Your task to perform on an android device: install app "The Home Depot" Image 0: 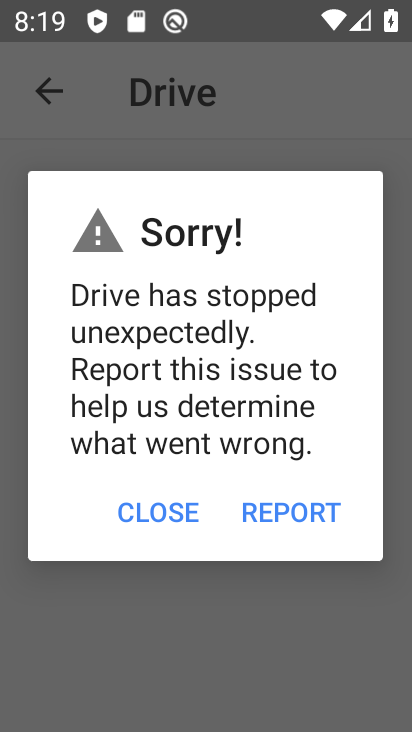
Step 0: press home button
Your task to perform on an android device: install app "The Home Depot" Image 1: 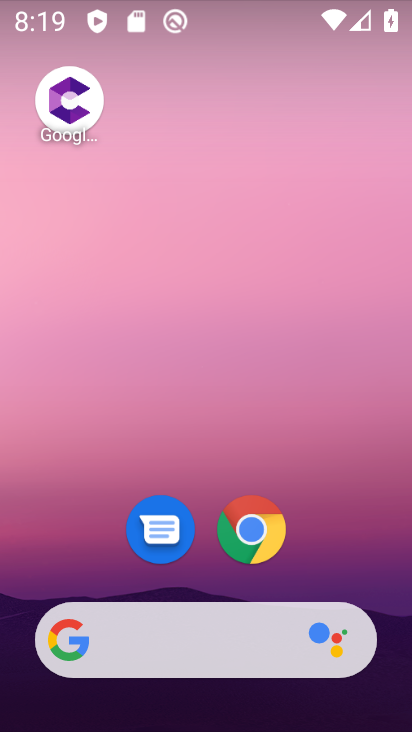
Step 1: drag from (334, 552) to (237, 14)
Your task to perform on an android device: install app "The Home Depot" Image 2: 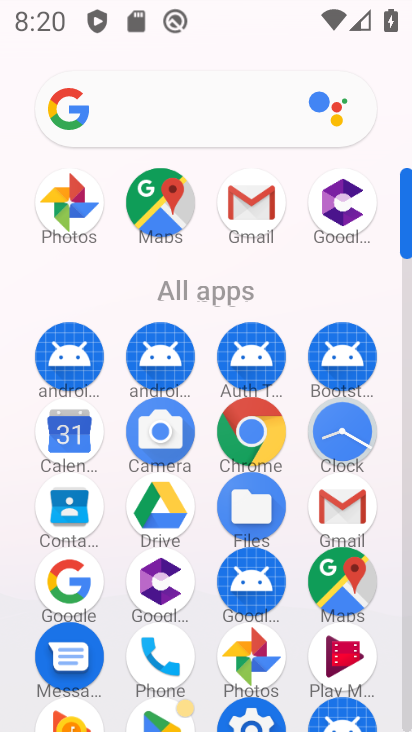
Step 2: drag from (17, 488) to (81, 72)
Your task to perform on an android device: install app "The Home Depot" Image 3: 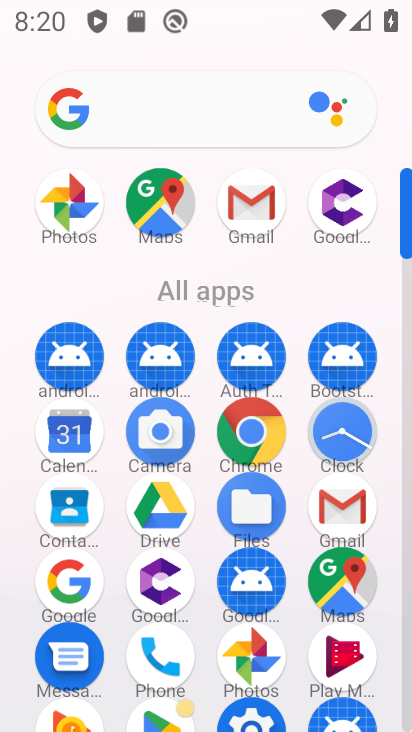
Step 3: drag from (16, 494) to (21, 238)
Your task to perform on an android device: install app "The Home Depot" Image 4: 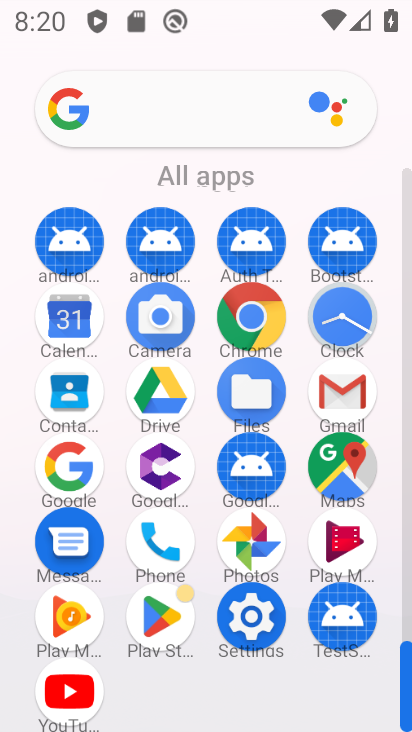
Step 4: click (159, 613)
Your task to perform on an android device: install app "The Home Depot" Image 5: 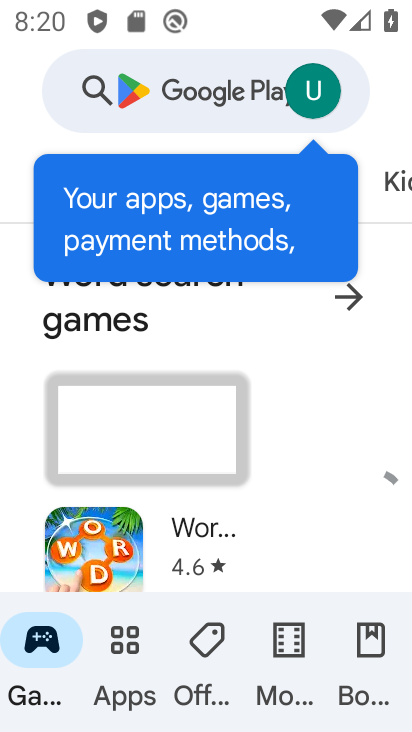
Step 5: click (201, 109)
Your task to perform on an android device: install app "The Home Depot" Image 6: 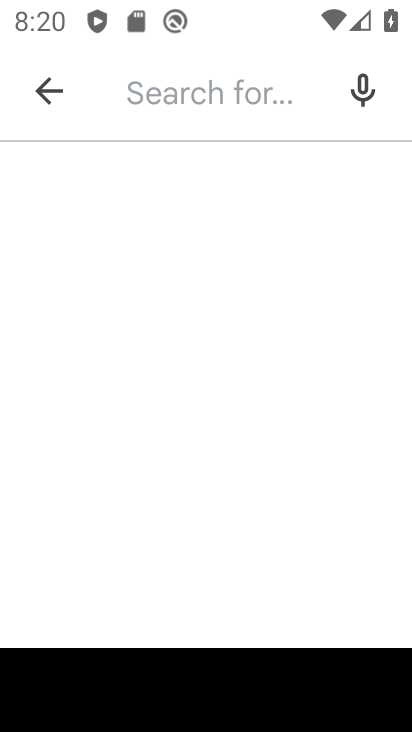
Step 6: type "the home depot"
Your task to perform on an android device: install app "The Home Depot" Image 7: 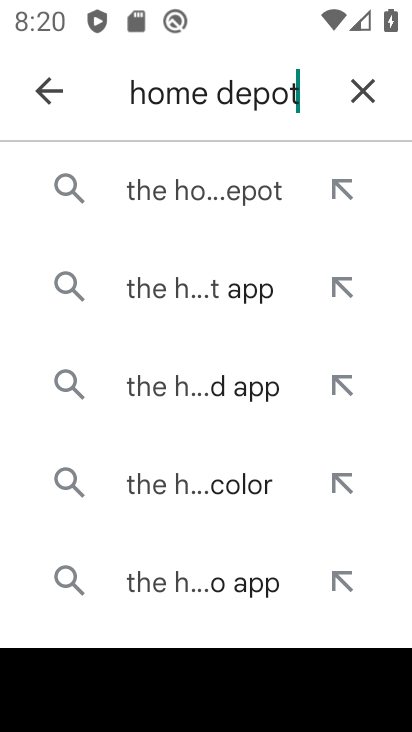
Step 7: click (186, 198)
Your task to perform on an android device: install app "The Home Depot" Image 8: 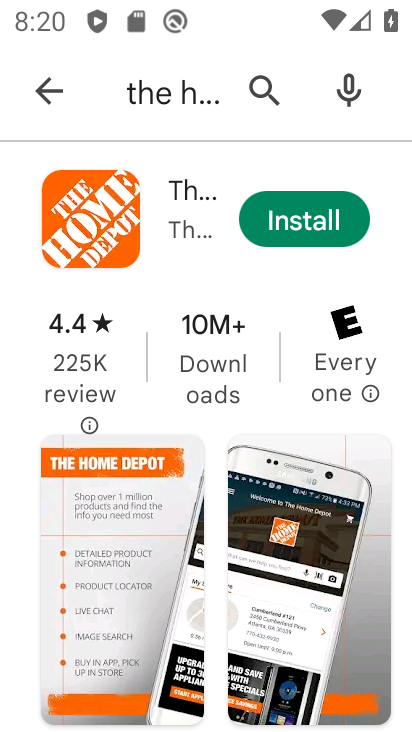
Step 8: click (299, 228)
Your task to perform on an android device: install app "The Home Depot" Image 9: 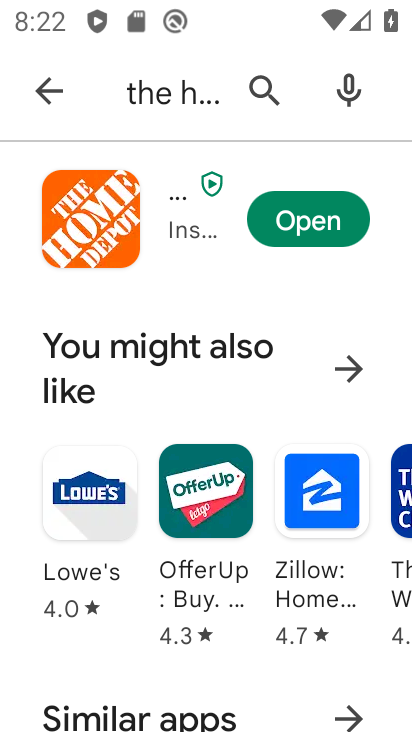
Step 9: task complete